Your task to perform on an android device: Go to Reddit.com Image 0: 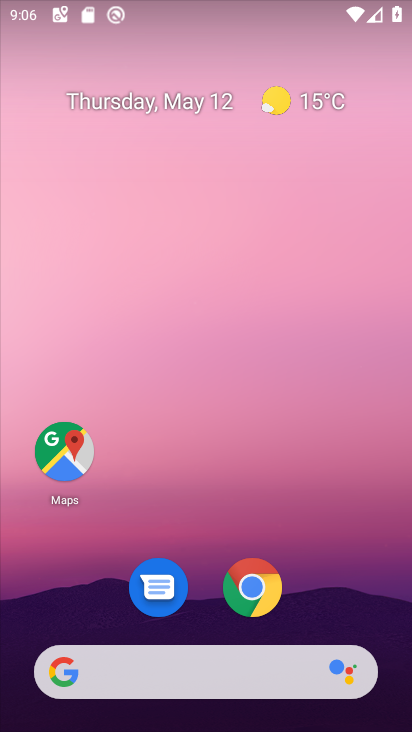
Step 0: click (261, 596)
Your task to perform on an android device: Go to Reddit.com Image 1: 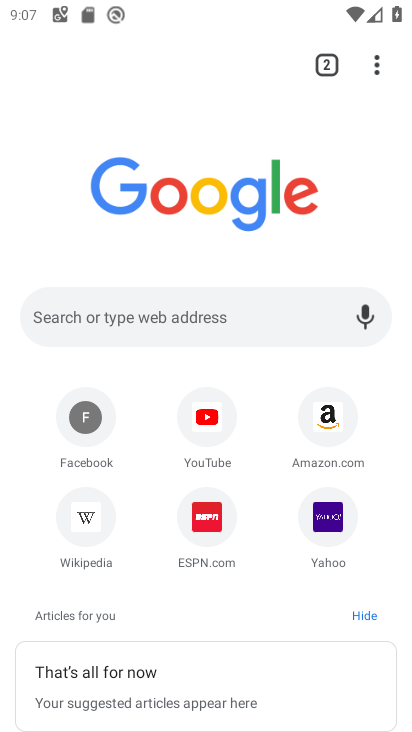
Step 1: click (183, 310)
Your task to perform on an android device: Go to Reddit.com Image 2: 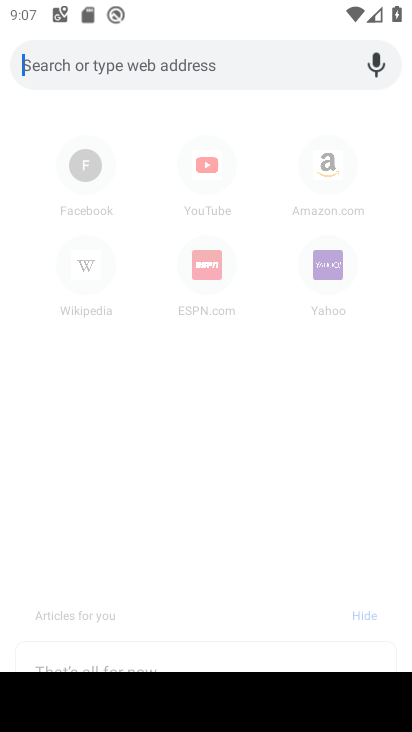
Step 2: type "reddit.com"
Your task to perform on an android device: Go to Reddit.com Image 3: 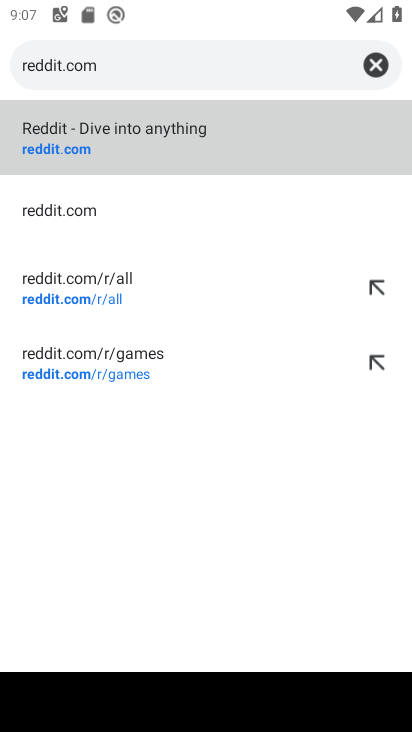
Step 3: click (169, 157)
Your task to perform on an android device: Go to Reddit.com Image 4: 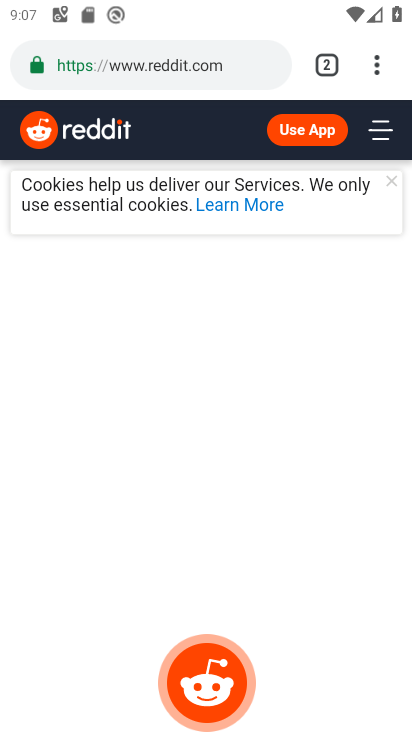
Step 4: task complete